Your task to perform on an android device: check battery use Image 0: 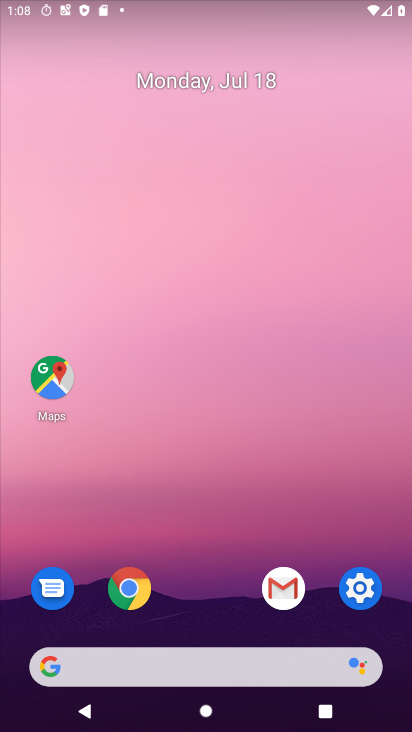
Step 0: click (350, 578)
Your task to perform on an android device: check battery use Image 1: 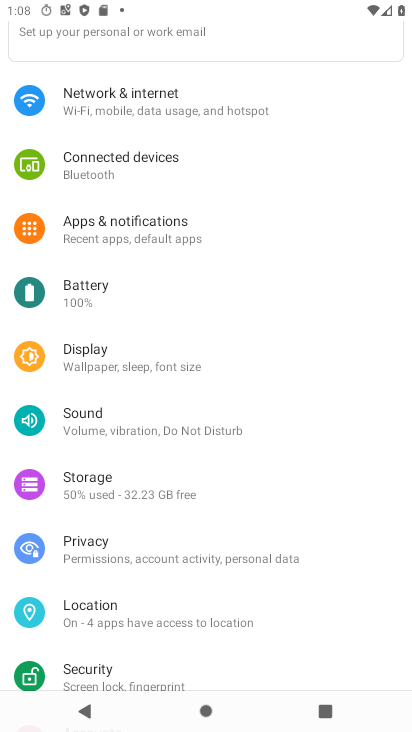
Step 1: click (106, 307)
Your task to perform on an android device: check battery use Image 2: 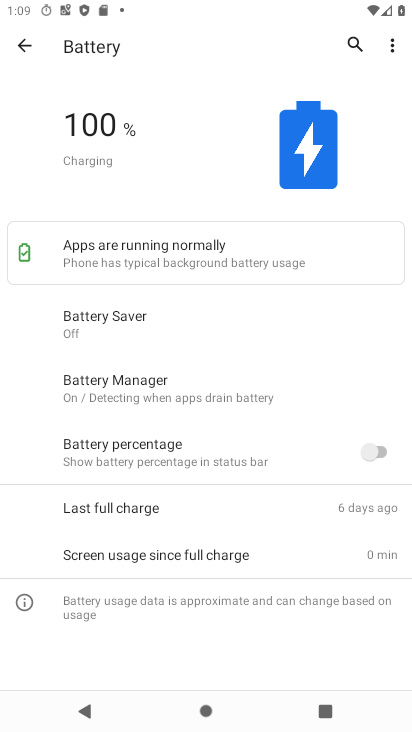
Step 2: task complete